Your task to perform on an android device: turn off notifications in google photos Image 0: 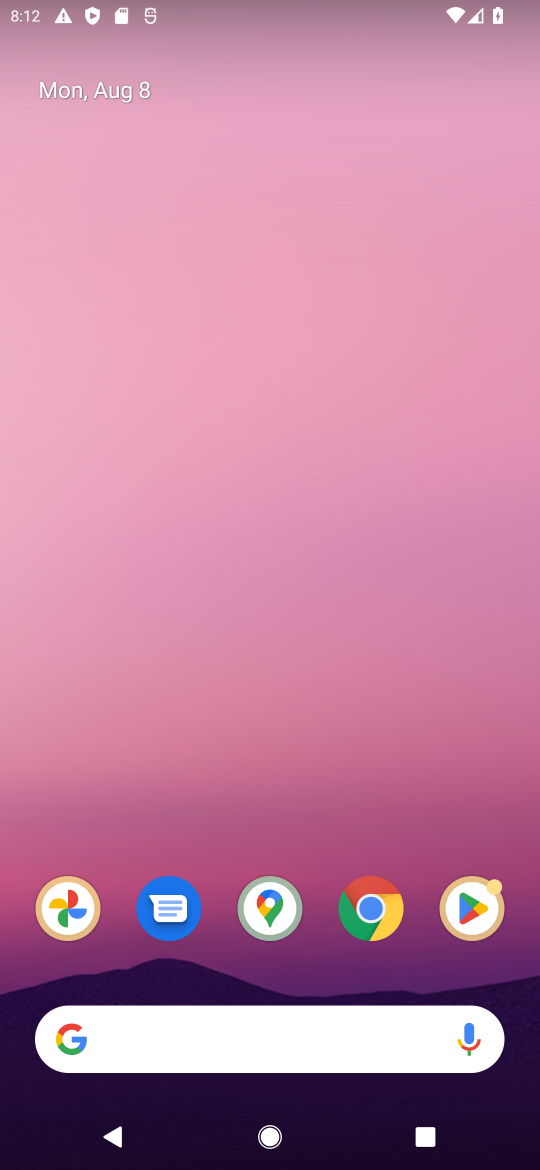
Step 0: click (48, 906)
Your task to perform on an android device: turn off notifications in google photos Image 1: 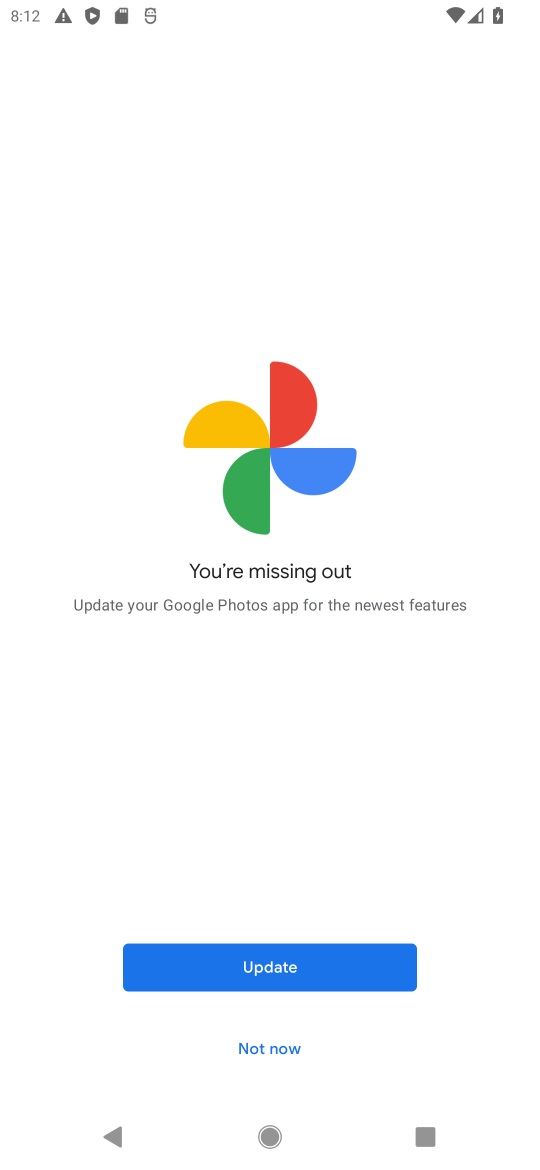
Step 1: click (278, 1052)
Your task to perform on an android device: turn off notifications in google photos Image 2: 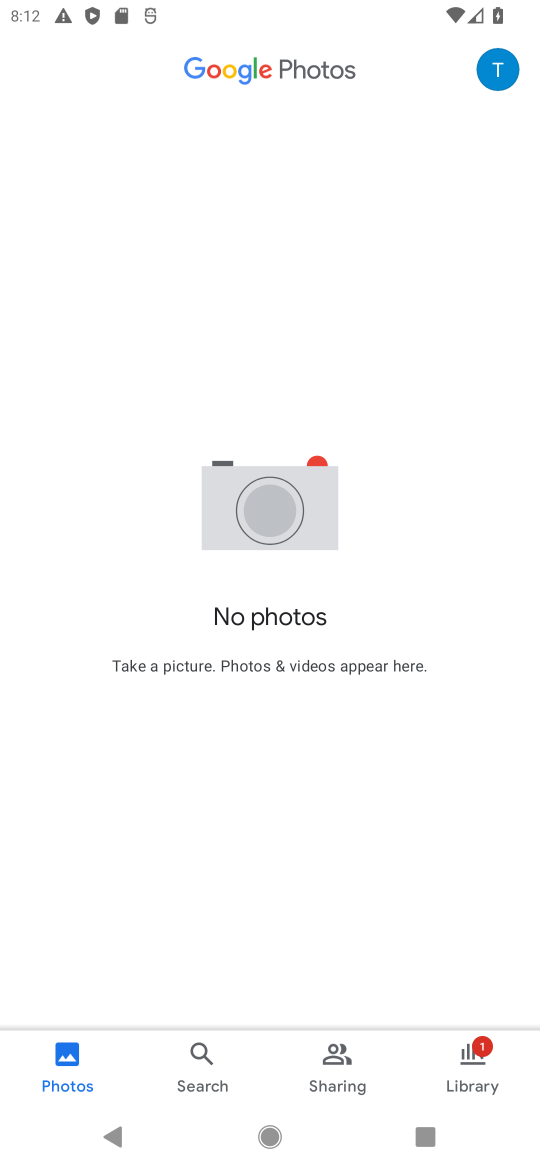
Step 2: click (476, 73)
Your task to perform on an android device: turn off notifications in google photos Image 3: 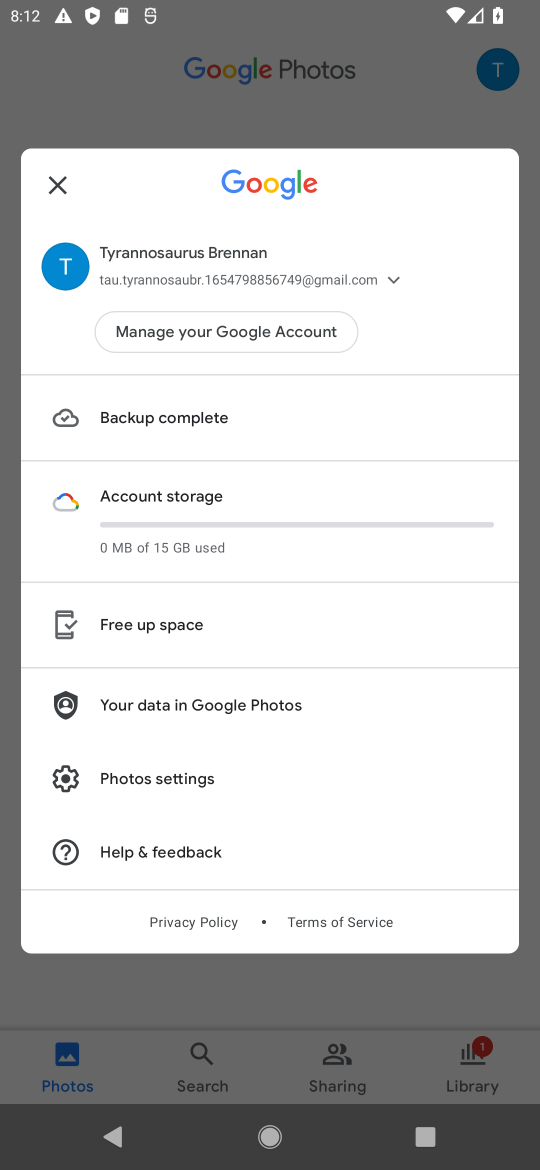
Step 3: click (184, 796)
Your task to perform on an android device: turn off notifications in google photos Image 4: 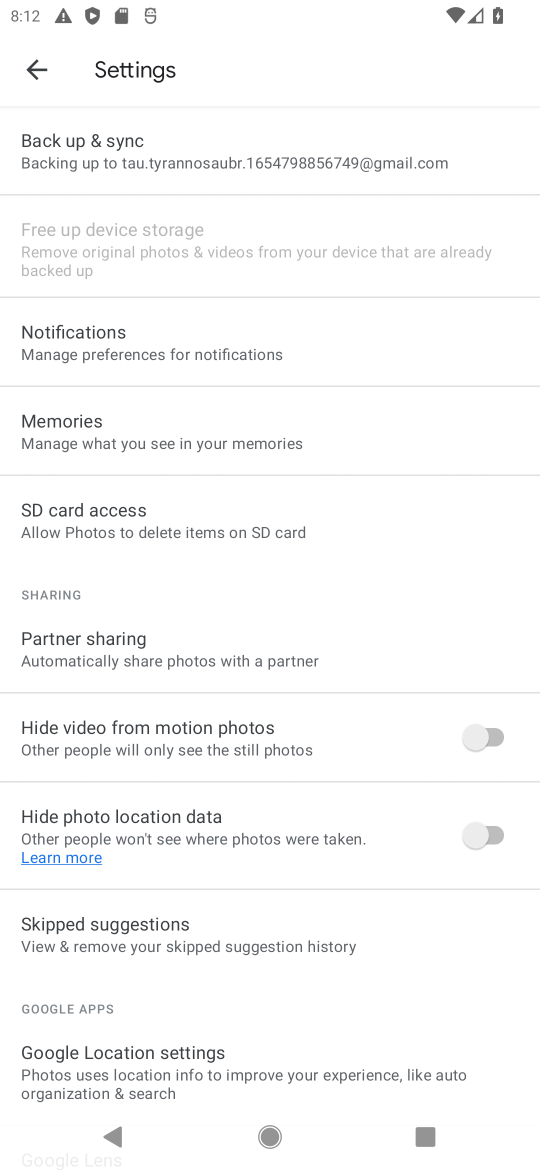
Step 4: click (212, 312)
Your task to perform on an android device: turn off notifications in google photos Image 5: 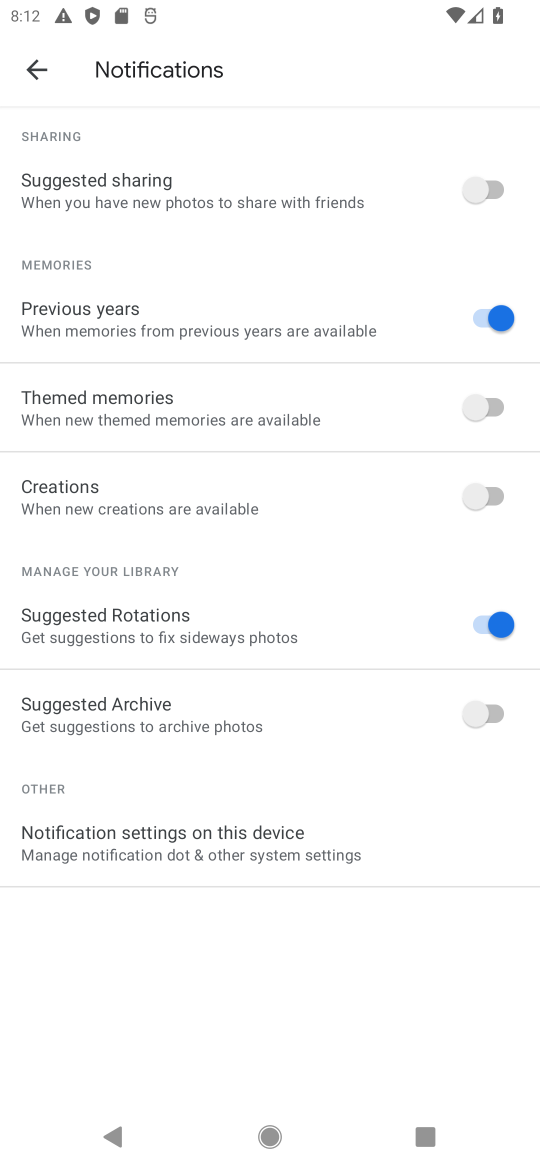
Step 5: click (356, 842)
Your task to perform on an android device: turn off notifications in google photos Image 6: 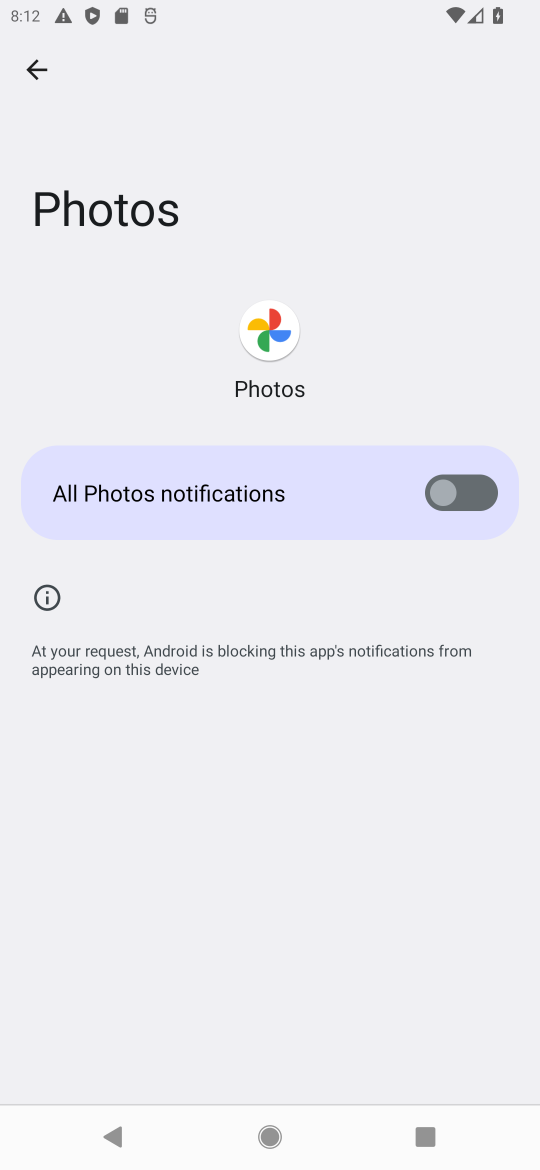
Step 6: task complete